Your task to perform on an android device: open app "McDonald's" (install if not already installed) Image 0: 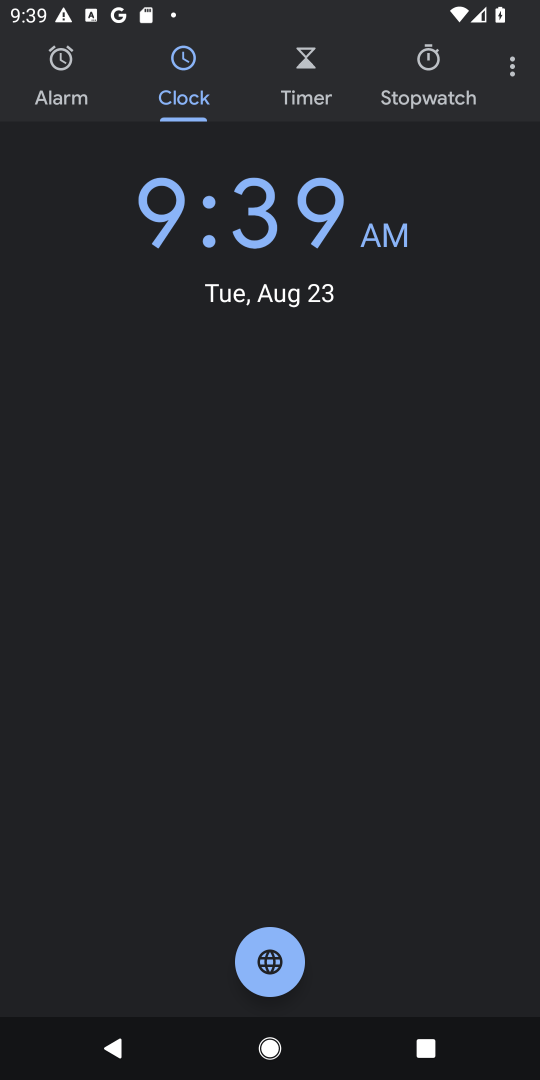
Step 0: press home button
Your task to perform on an android device: open app "McDonald's" (install if not already installed) Image 1: 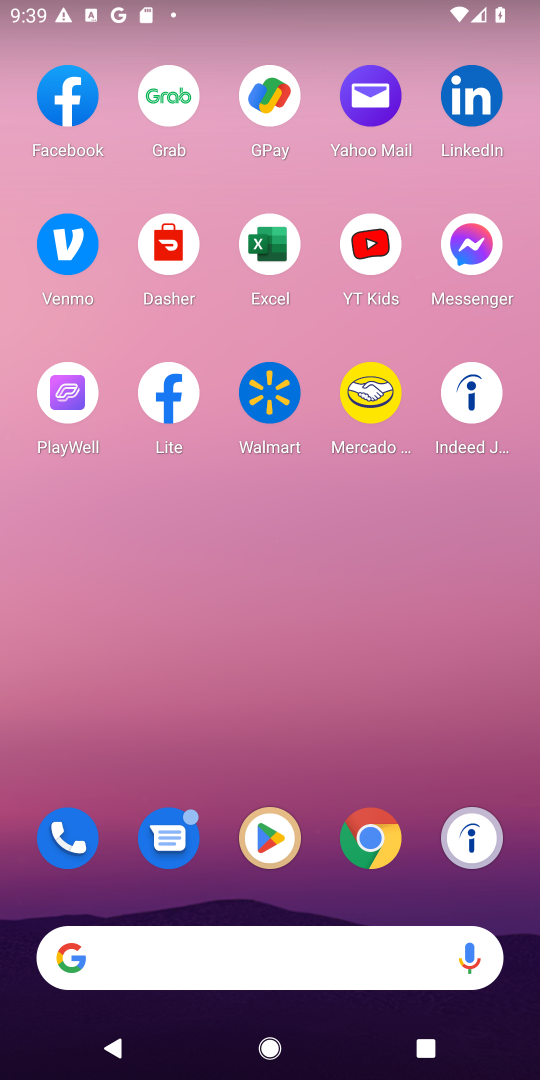
Step 1: click (258, 849)
Your task to perform on an android device: open app "McDonald's" (install if not already installed) Image 2: 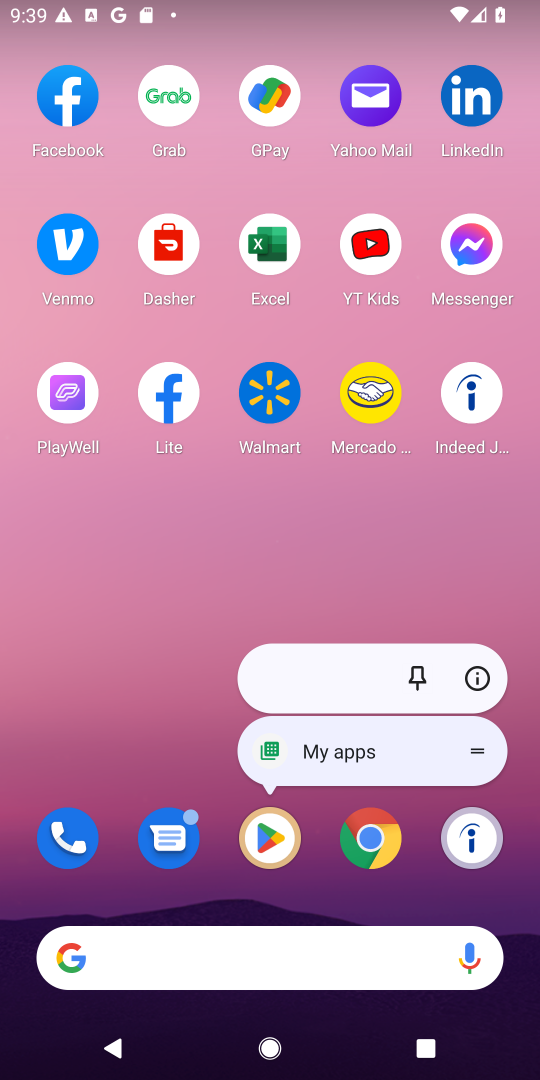
Step 2: click (258, 849)
Your task to perform on an android device: open app "McDonald's" (install if not already installed) Image 3: 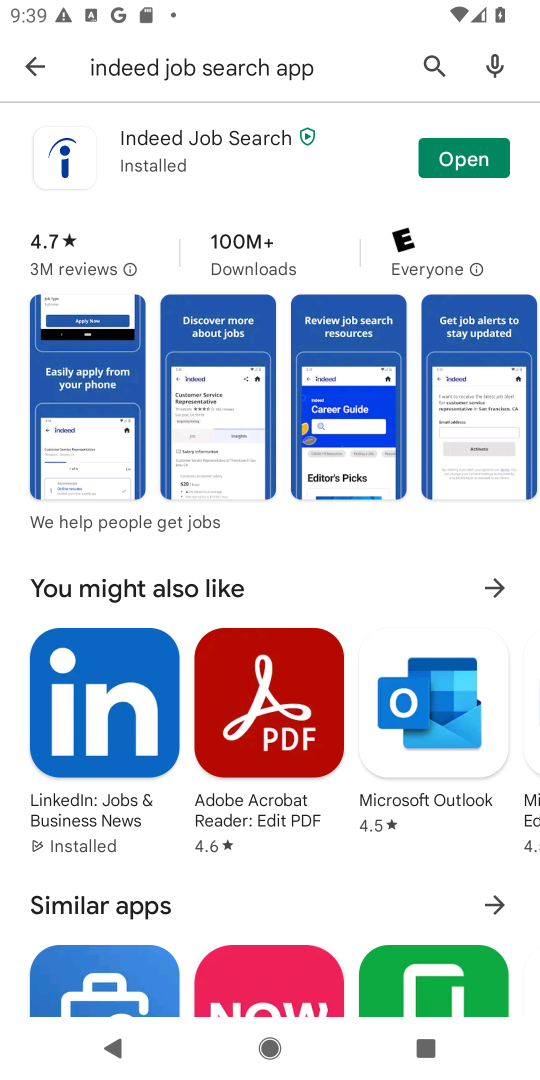
Step 3: click (426, 64)
Your task to perform on an android device: open app "McDonald's" (install if not already installed) Image 4: 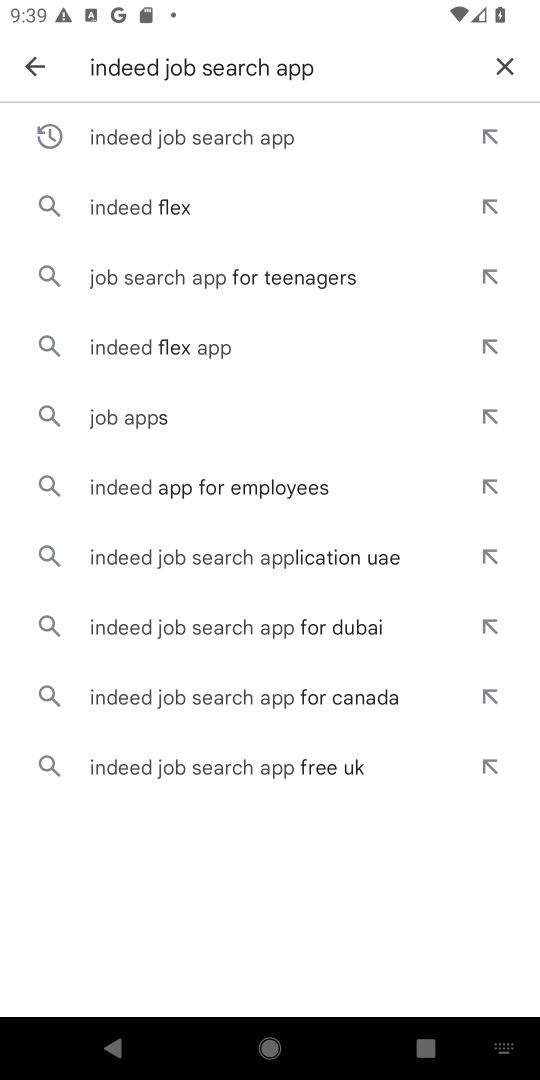
Step 4: click (495, 73)
Your task to perform on an android device: open app "McDonald's" (install if not already installed) Image 5: 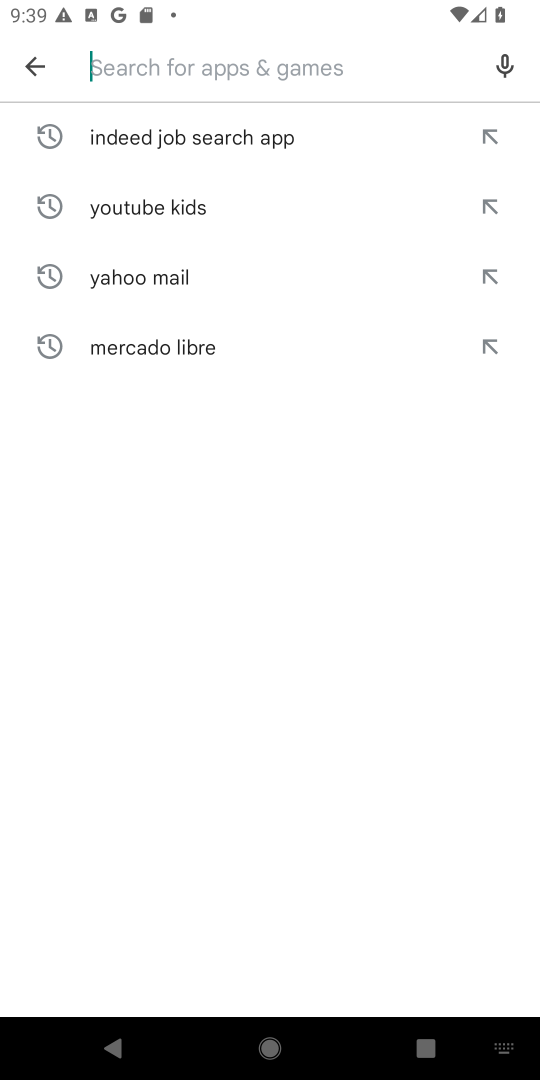
Step 5: type "McDonald's"
Your task to perform on an android device: open app "McDonald's" (install if not already installed) Image 6: 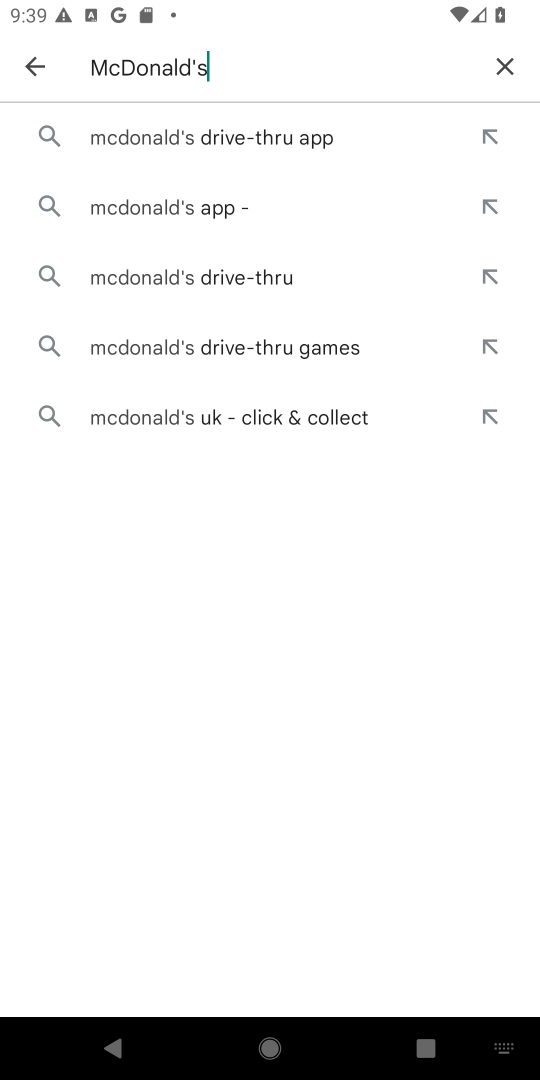
Step 6: click (230, 218)
Your task to perform on an android device: open app "McDonald's" (install if not already installed) Image 7: 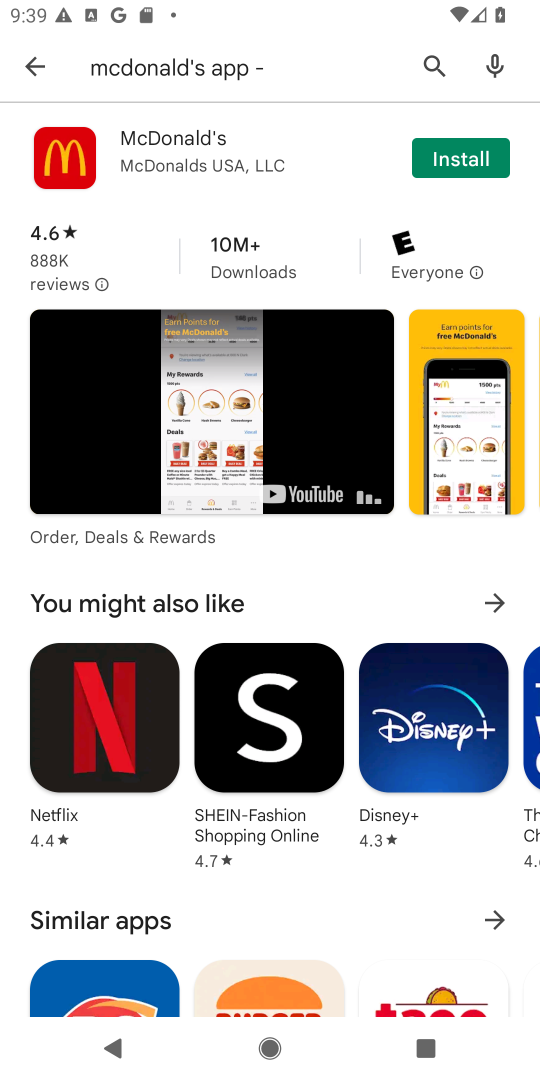
Step 7: click (444, 168)
Your task to perform on an android device: open app "McDonald's" (install if not already installed) Image 8: 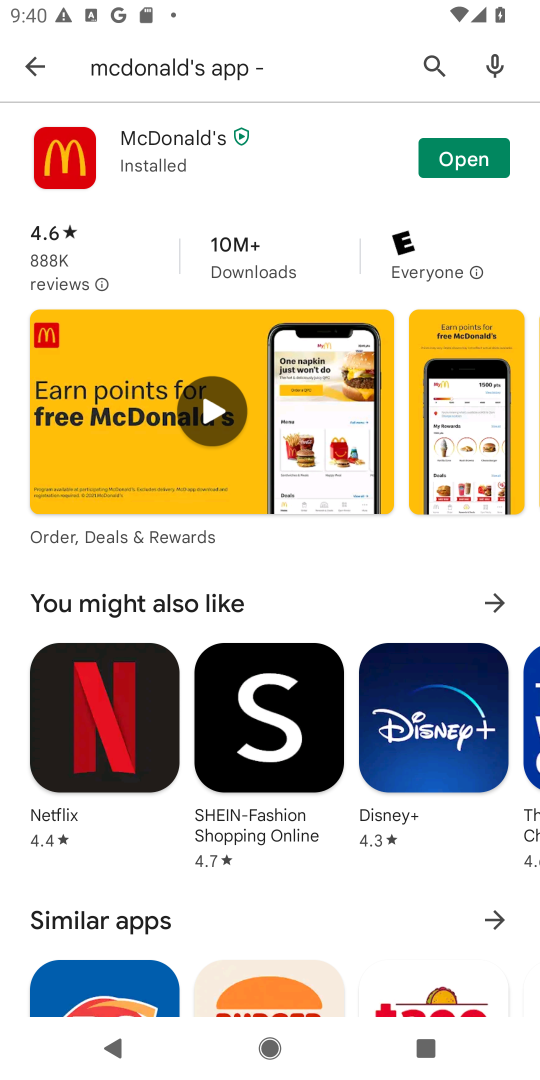
Step 8: click (444, 168)
Your task to perform on an android device: open app "McDonald's" (install if not already installed) Image 9: 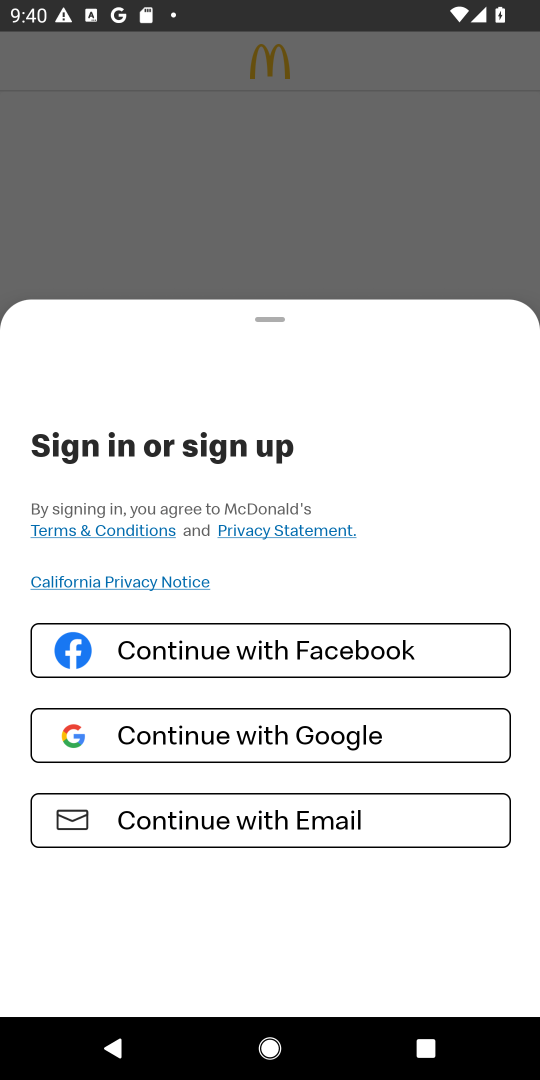
Step 9: task complete